Your task to perform on an android device: turn off sleep mode Image 0: 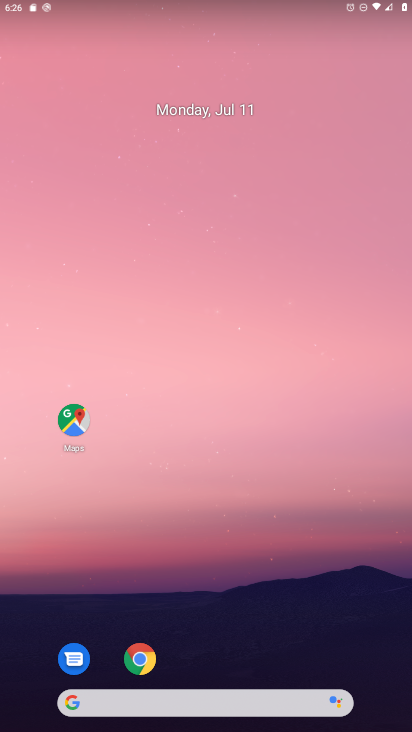
Step 0: drag from (348, 627) to (311, 97)
Your task to perform on an android device: turn off sleep mode Image 1: 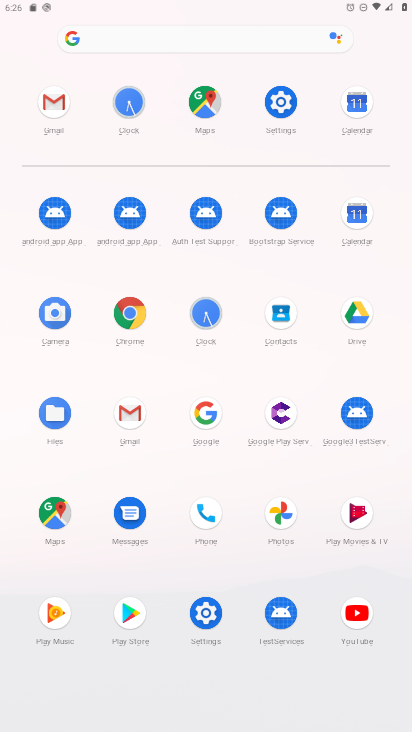
Step 1: click (201, 612)
Your task to perform on an android device: turn off sleep mode Image 2: 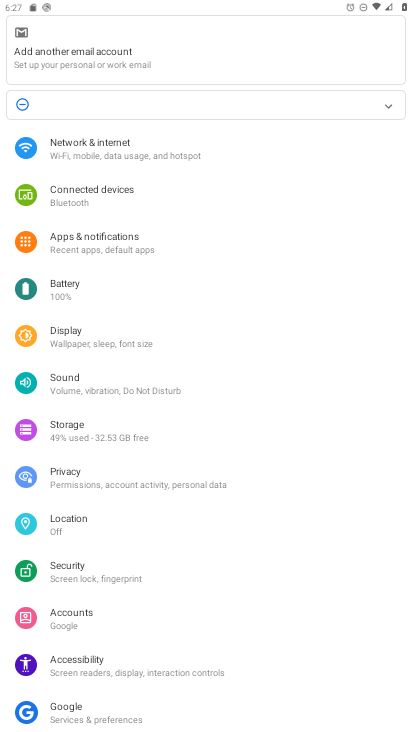
Step 2: click (70, 334)
Your task to perform on an android device: turn off sleep mode Image 3: 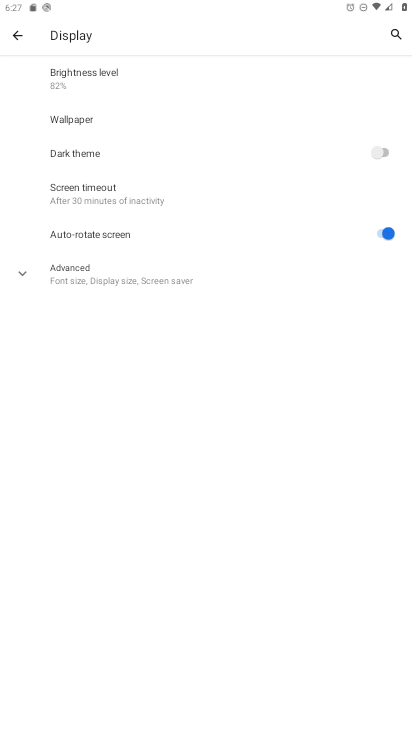
Step 3: click (20, 266)
Your task to perform on an android device: turn off sleep mode Image 4: 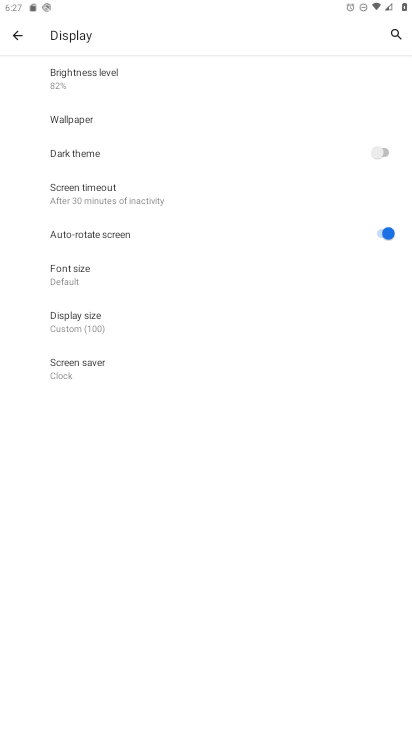
Step 4: task complete